Your task to perform on an android device: show emergency info Image 0: 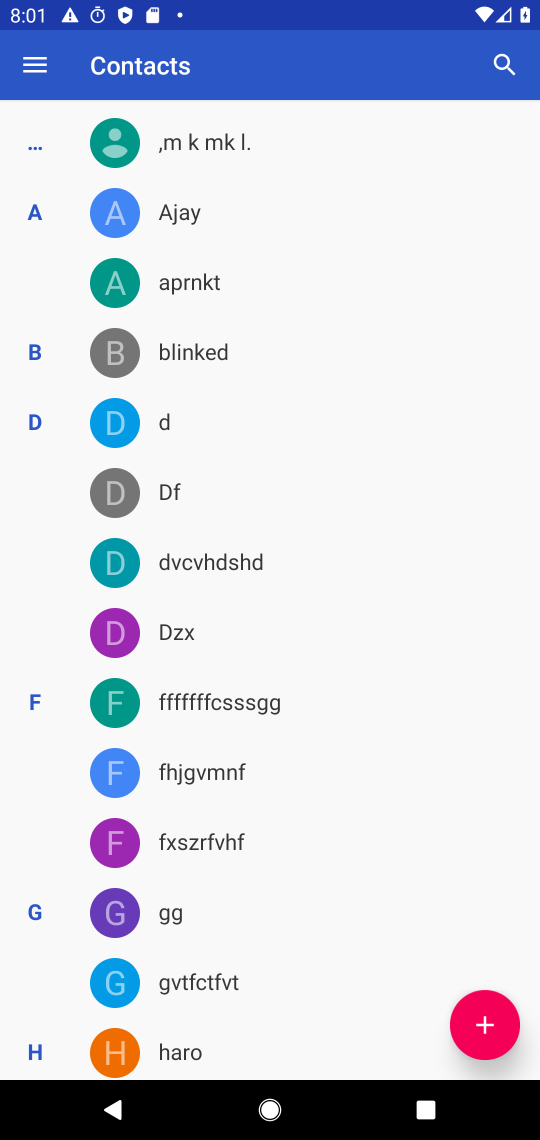
Step 0: press home button
Your task to perform on an android device: show emergency info Image 1: 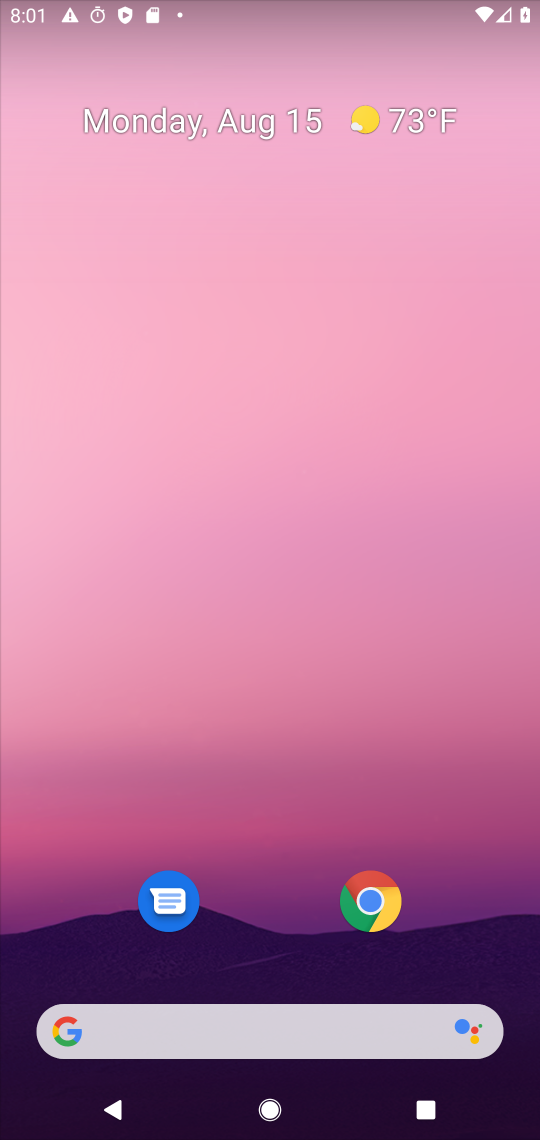
Step 1: drag from (235, 1006) to (269, 280)
Your task to perform on an android device: show emergency info Image 2: 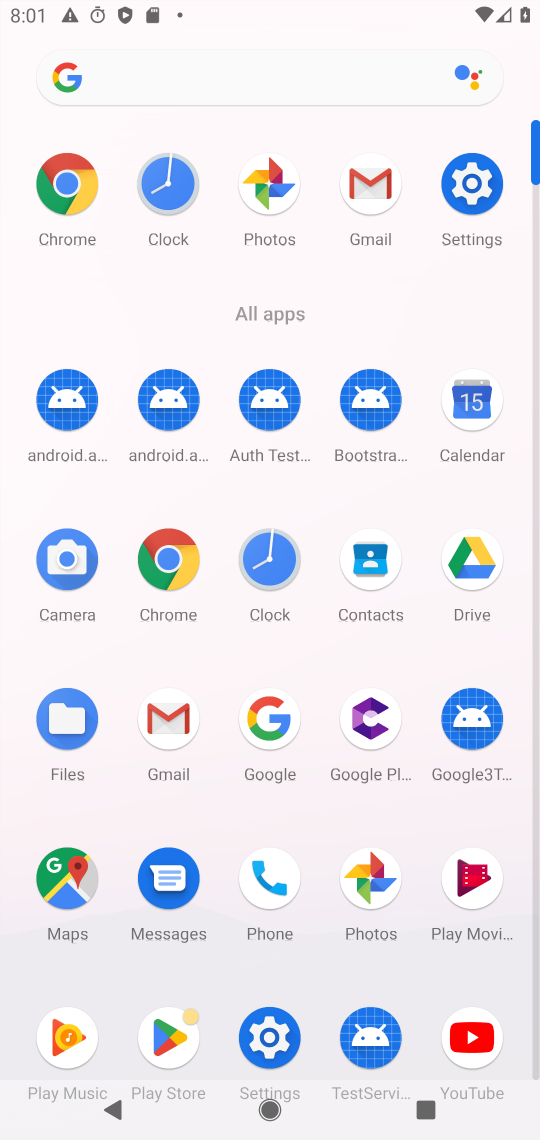
Step 2: click (490, 215)
Your task to perform on an android device: show emergency info Image 3: 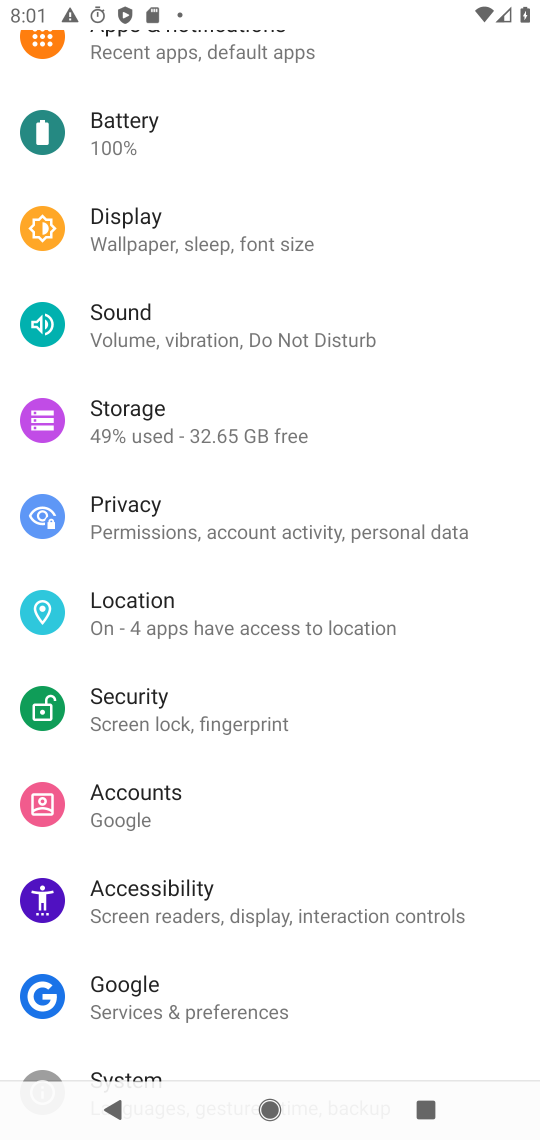
Step 3: drag from (255, 937) to (274, 346)
Your task to perform on an android device: show emergency info Image 4: 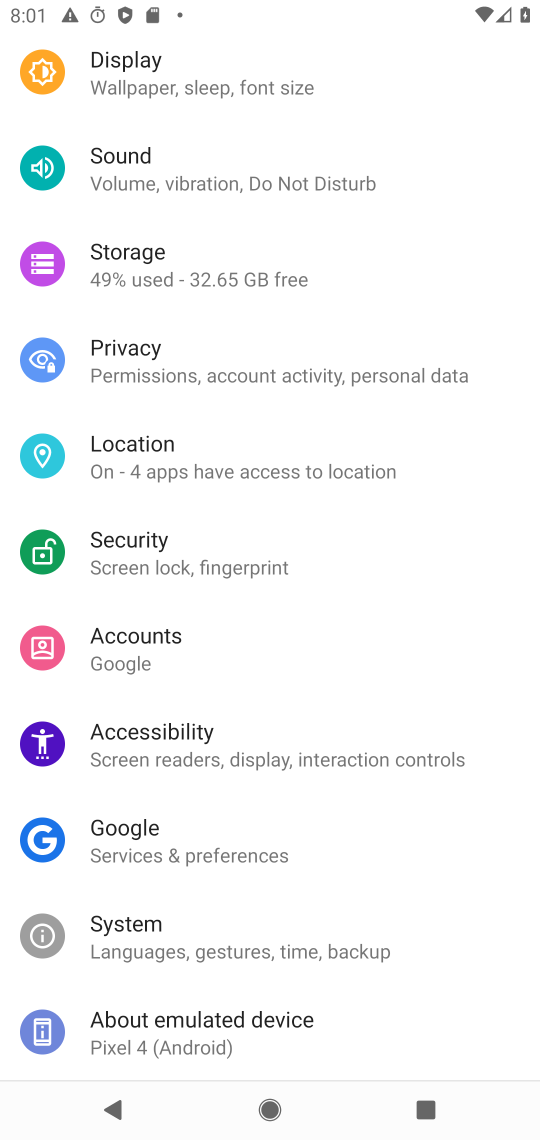
Step 4: drag from (177, 948) to (217, 541)
Your task to perform on an android device: show emergency info Image 5: 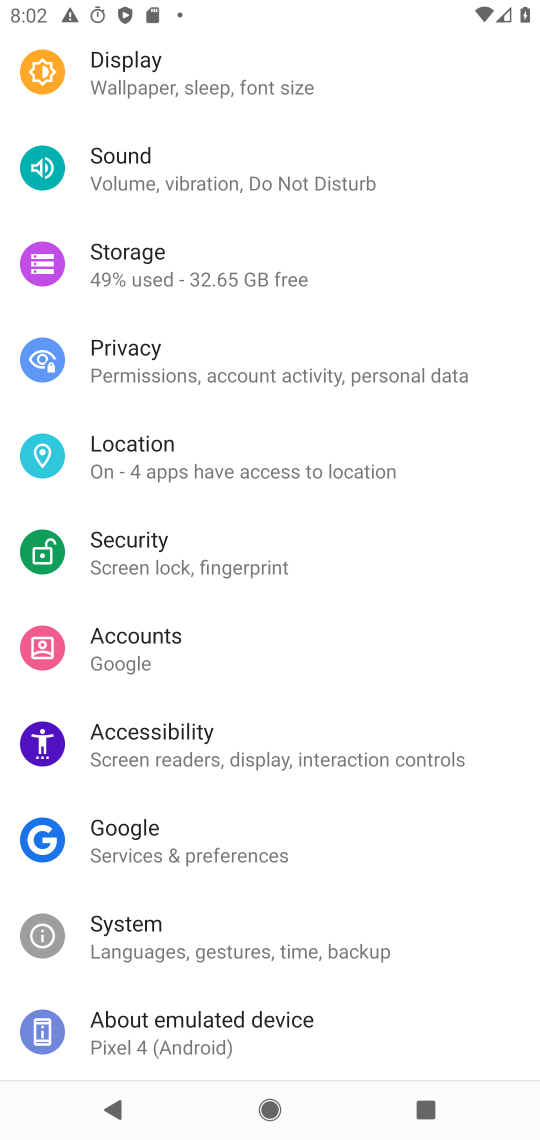
Step 5: click (196, 1039)
Your task to perform on an android device: show emergency info Image 6: 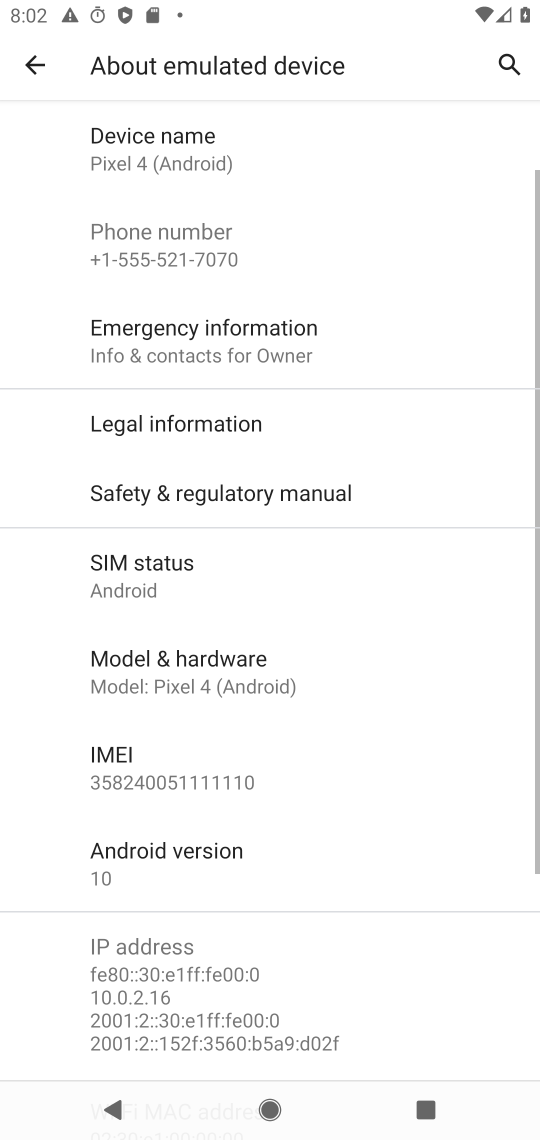
Step 6: click (242, 347)
Your task to perform on an android device: show emergency info Image 7: 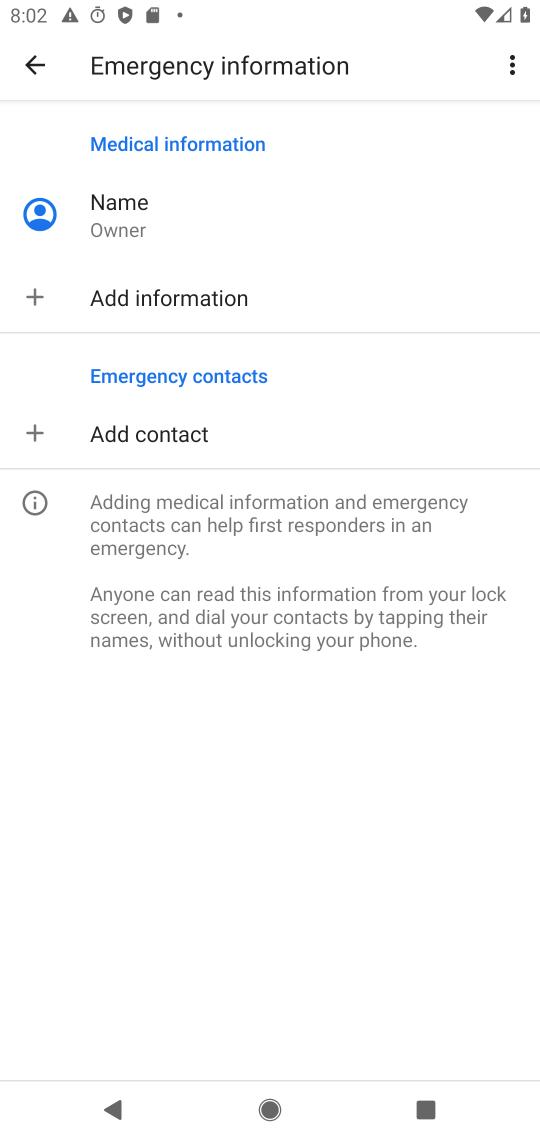
Step 7: task complete